Your task to perform on an android device: turn off smart reply in the gmail app Image 0: 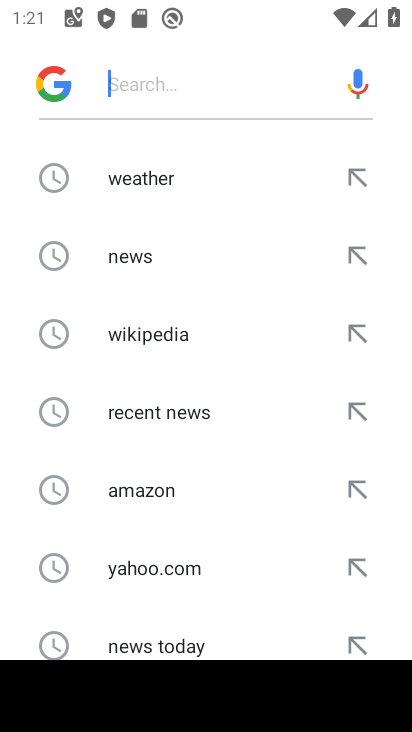
Step 0: press home button
Your task to perform on an android device: turn off smart reply in the gmail app Image 1: 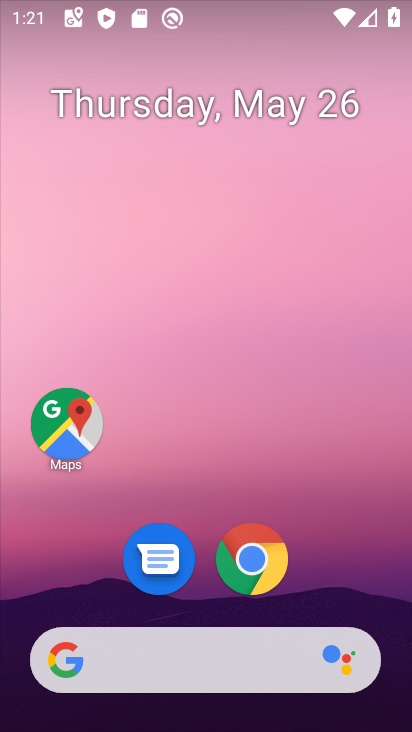
Step 1: drag from (162, 649) to (227, 1)
Your task to perform on an android device: turn off smart reply in the gmail app Image 2: 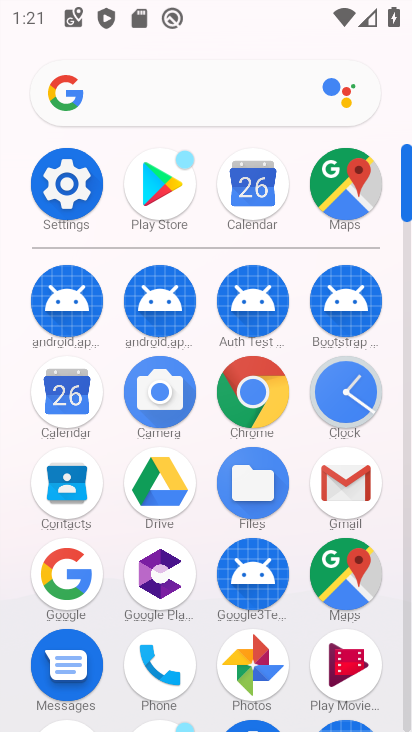
Step 2: click (345, 493)
Your task to perform on an android device: turn off smart reply in the gmail app Image 3: 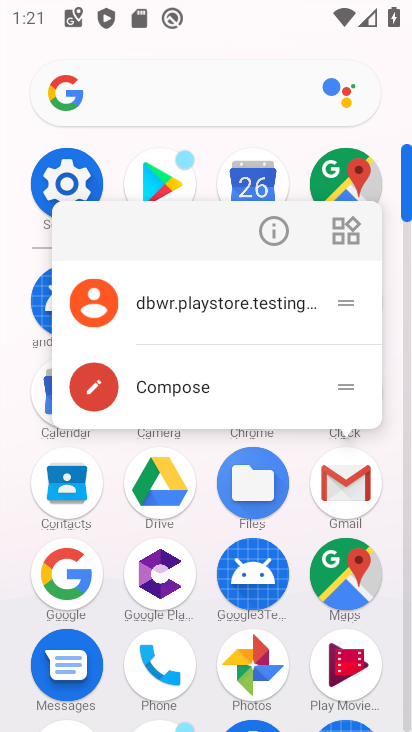
Step 3: click (345, 493)
Your task to perform on an android device: turn off smart reply in the gmail app Image 4: 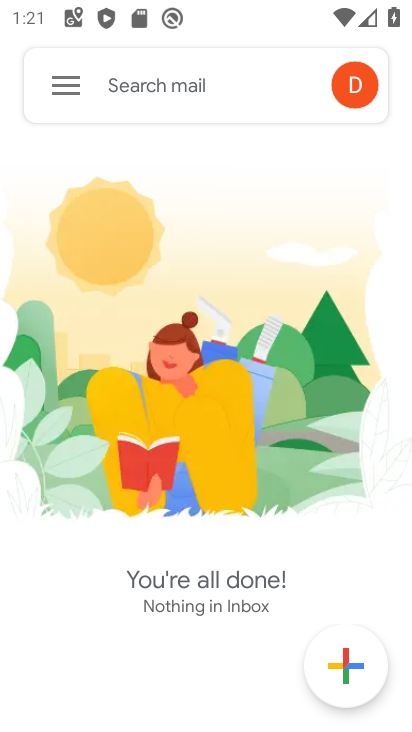
Step 4: click (70, 92)
Your task to perform on an android device: turn off smart reply in the gmail app Image 5: 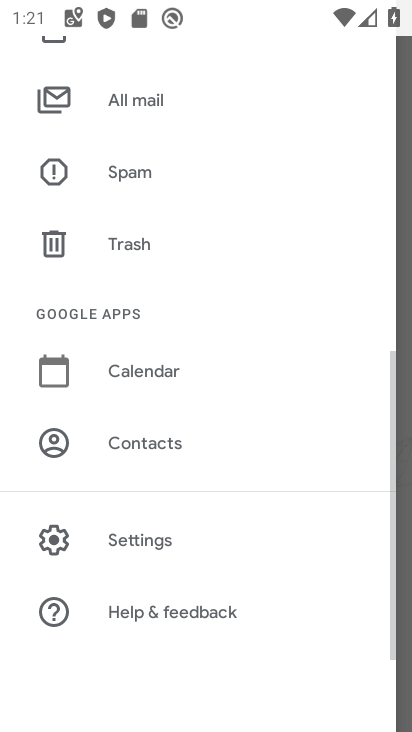
Step 5: click (149, 542)
Your task to perform on an android device: turn off smart reply in the gmail app Image 6: 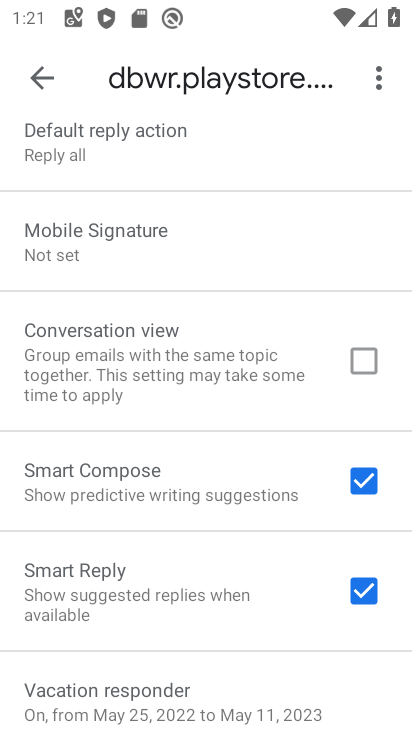
Step 6: drag from (212, 598) to (234, 373)
Your task to perform on an android device: turn off smart reply in the gmail app Image 7: 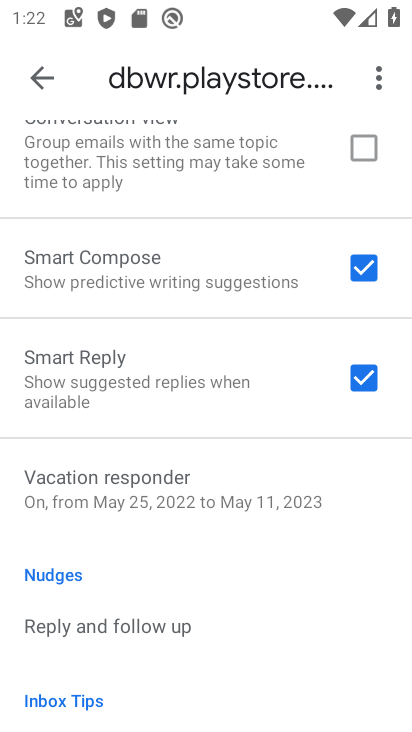
Step 7: click (371, 373)
Your task to perform on an android device: turn off smart reply in the gmail app Image 8: 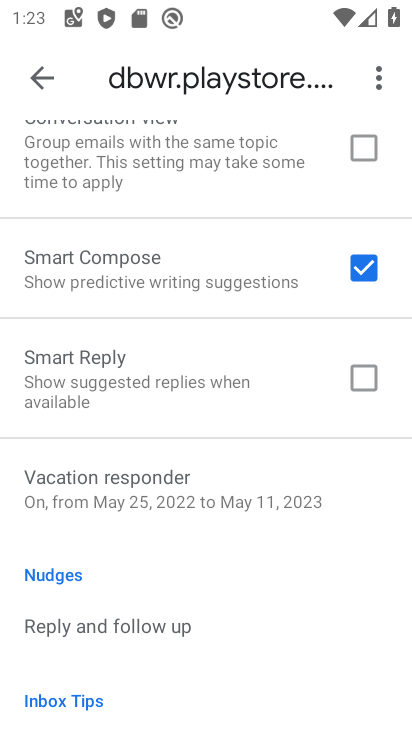
Step 8: task complete